Your task to perform on an android device: turn on the 12-hour format for clock Image 0: 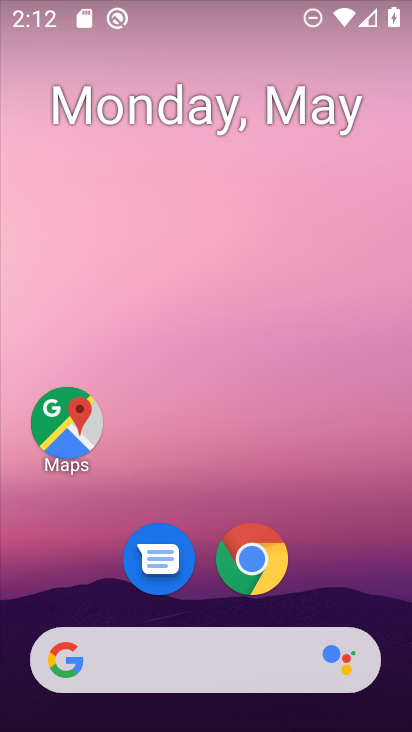
Step 0: drag from (371, 551) to (352, 18)
Your task to perform on an android device: turn on the 12-hour format for clock Image 1: 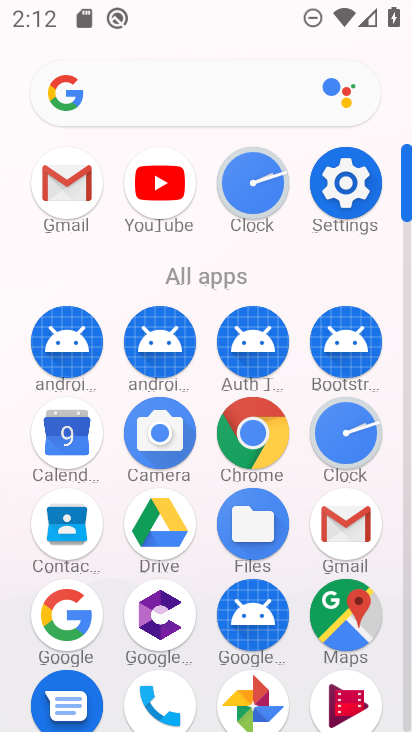
Step 1: click (253, 189)
Your task to perform on an android device: turn on the 12-hour format for clock Image 2: 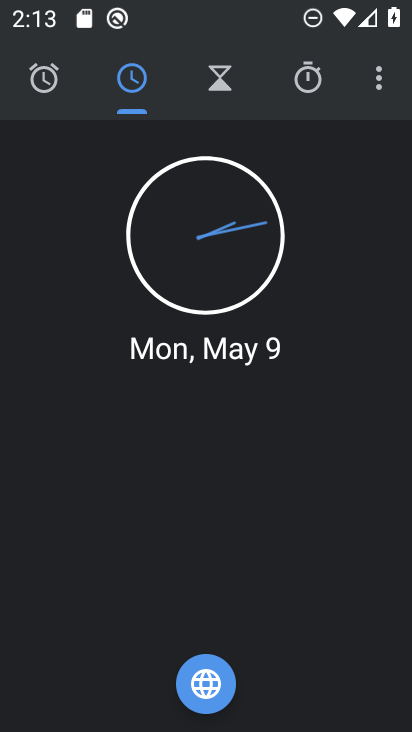
Step 2: click (381, 82)
Your task to perform on an android device: turn on the 12-hour format for clock Image 3: 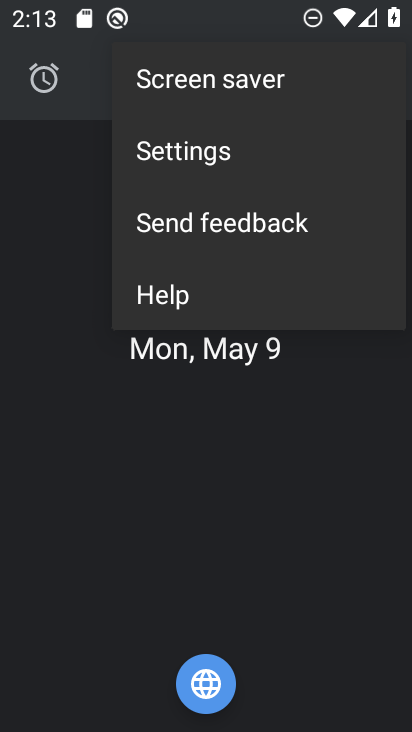
Step 3: click (164, 141)
Your task to perform on an android device: turn on the 12-hour format for clock Image 4: 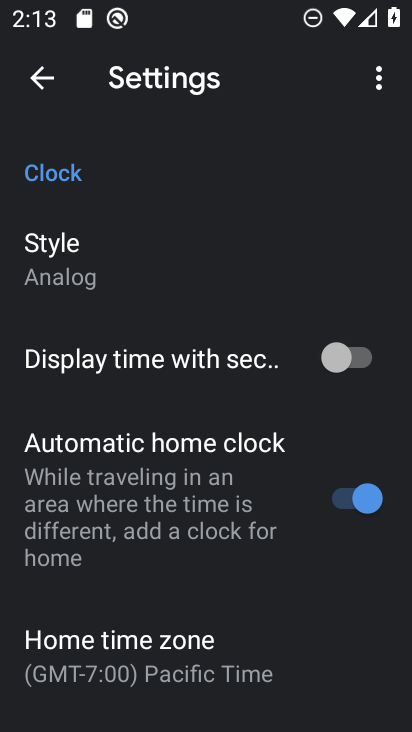
Step 4: drag from (276, 640) to (299, 225)
Your task to perform on an android device: turn on the 12-hour format for clock Image 5: 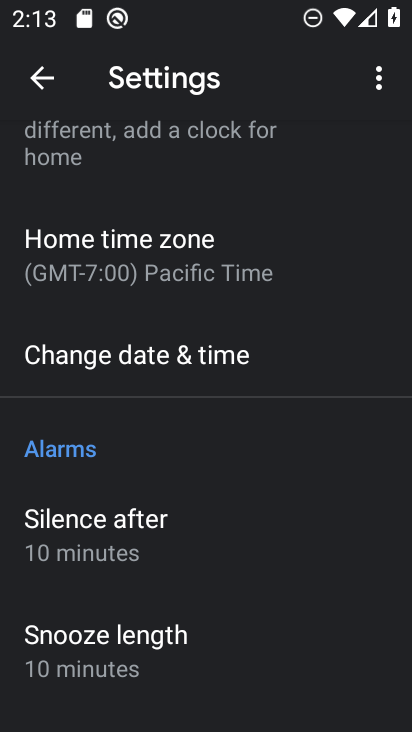
Step 5: click (166, 358)
Your task to perform on an android device: turn on the 12-hour format for clock Image 6: 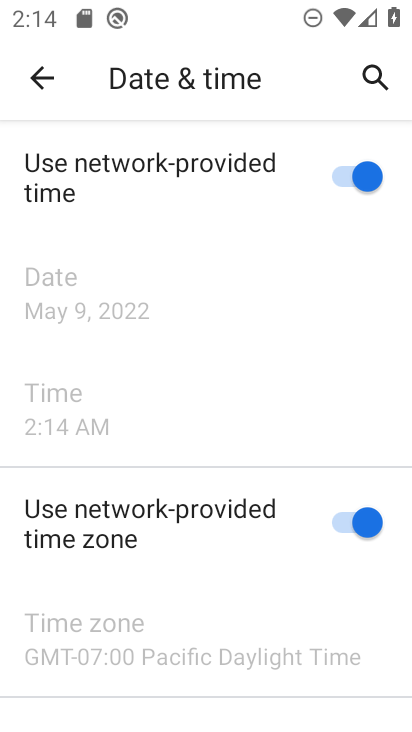
Step 6: task complete